Your task to perform on an android device: Is it going to rain this weekend? Image 0: 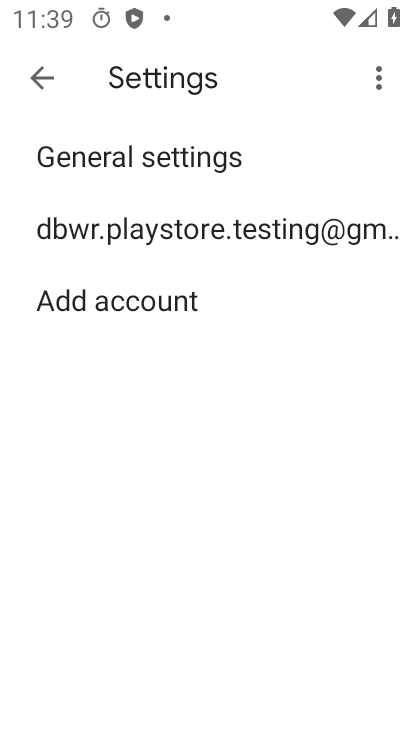
Step 0: press home button
Your task to perform on an android device: Is it going to rain this weekend? Image 1: 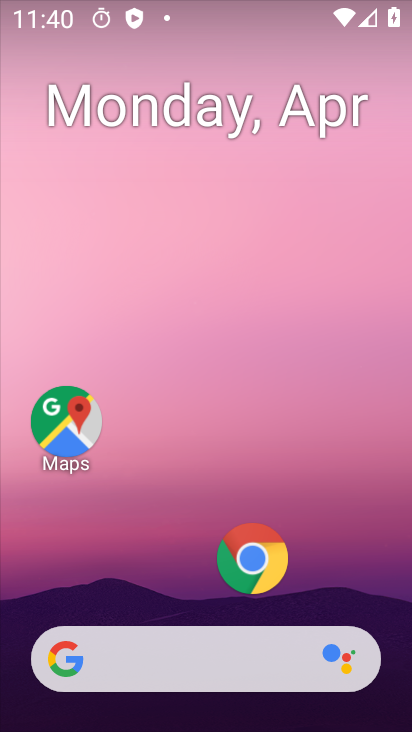
Step 1: click (257, 549)
Your task to perform on an android device: Is it going to rain this weekend? Image 2: 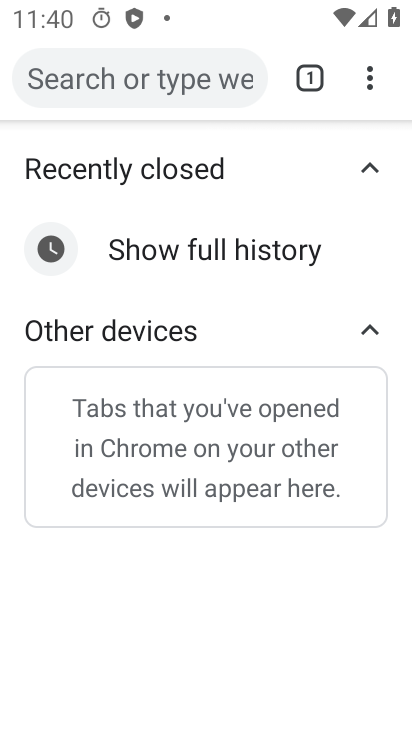
Step 2: click (121, 89)
Your task to perform on an android device: Is it going to rain this weekend? Image 3: 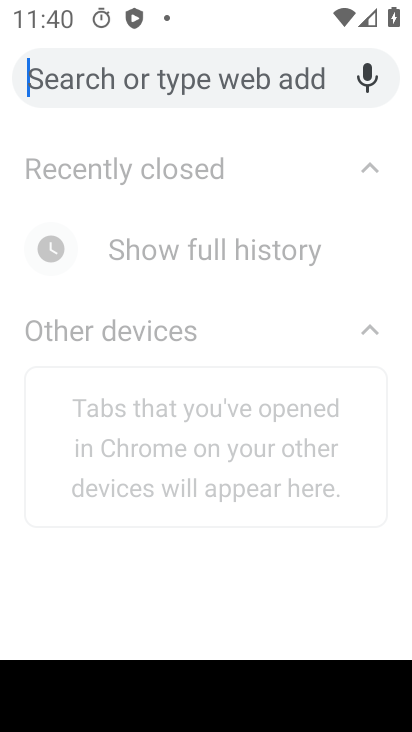
Step 3: type "is it going to rain this weekend?"
Your task to perform on an android device: Is it going to rain this weekend? Image 4: 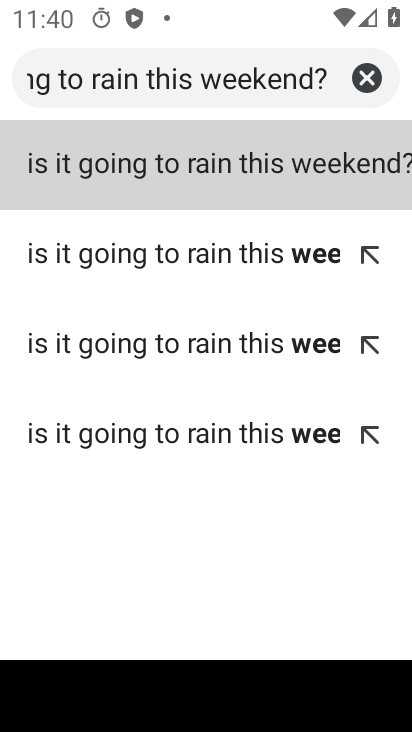
Step 4: click (203, 186)
Your task to perform on an android device: Is it going to rain this weekend? Image 5: 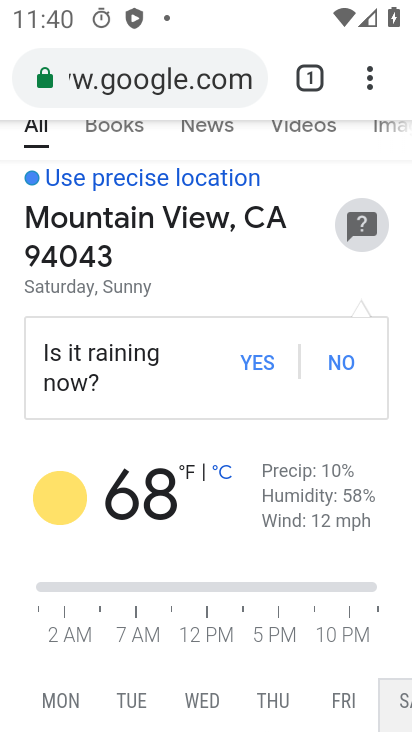
Step 5: task complete